Your task to perform on an android device: Open Google Chrome and click the shortcut for Amazon.com Image 0: 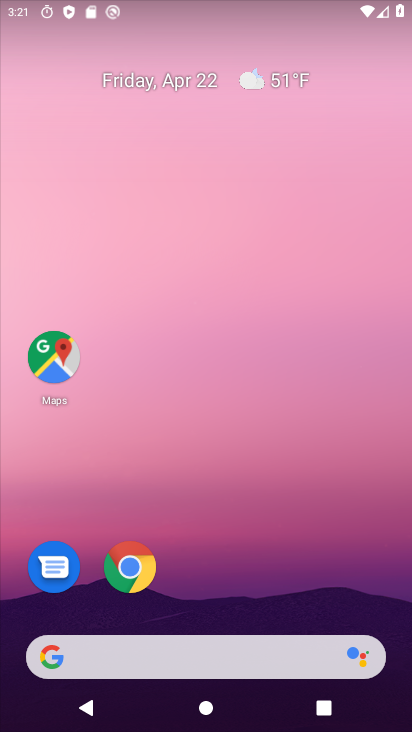
Step 0: click (134, 571)
Your task to perform on an android device: Open Google Chrome and click the shortcut for Amazon.com Image 1: 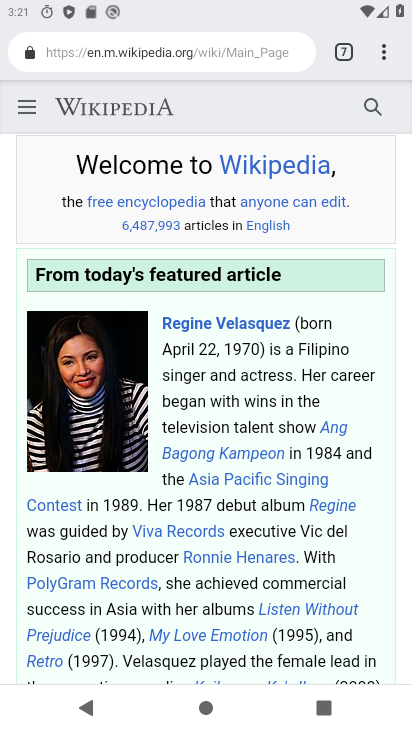
Step 1: click (344, 49)
Your task to perform on an android device: Open Google Chrome and click the shortcut for Amazon.com Image 2: 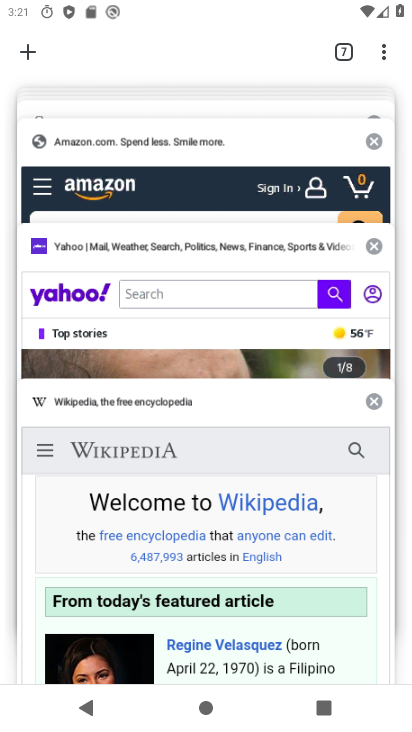
Step 2: click (28, 47)
Your task to perform on an android device: Open Google Chrome and click the shortcut for Amazon.com Image 3: 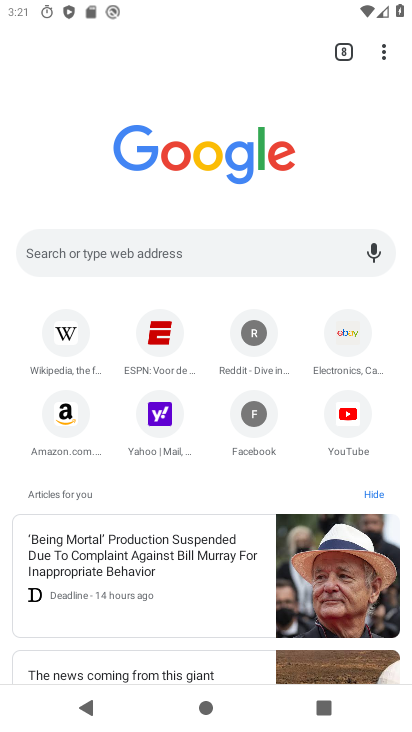
Step 3: click (61, 403)
Your task to perform on an android device: Open Google Chrome and click the shortcut for Amazon.com Image 4: 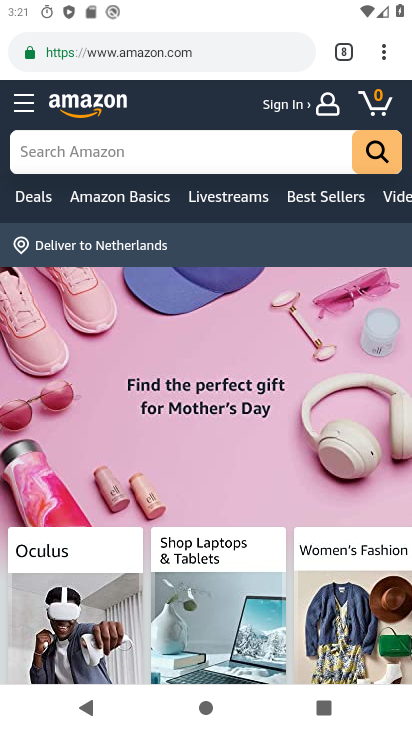
Step 4: task complete